Your task to perform on an android device: Search for seafood restaurants on Google Maps Image 0: 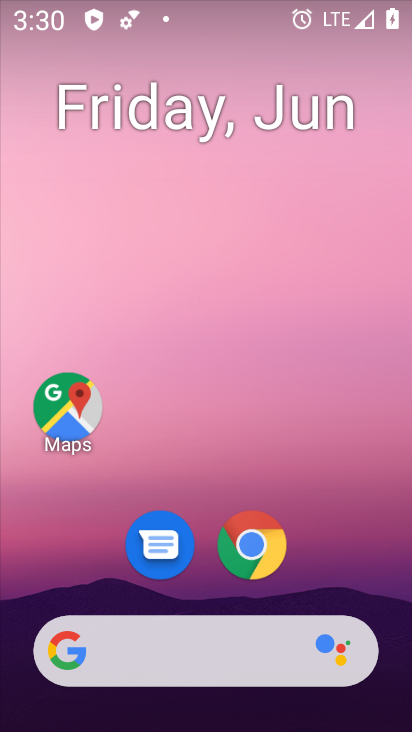
Step 0: click (65, 408)
Your task to perform on an android device: Search for seafood restaurants on Google Maps Image 1: 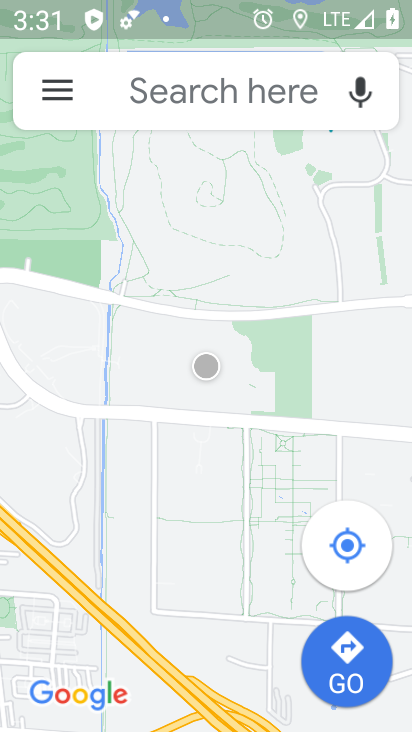
Step 1: click (242, 100)
Your task to perform on an android device: Search for seafood restaurants on Google Maps Image 2: 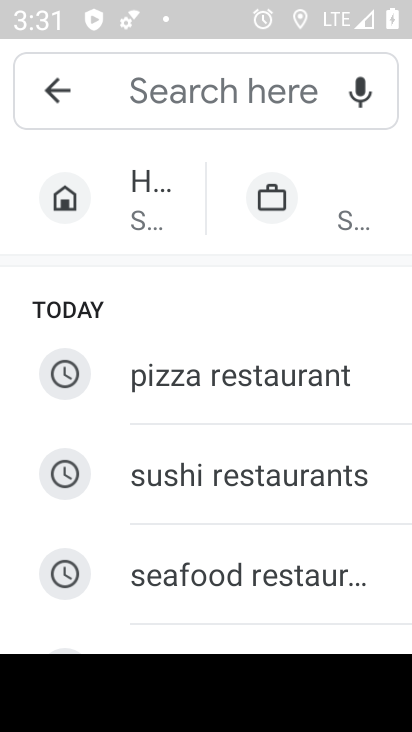
Step 2: type "seafood restaurants"
Your task to perform on an android device: Search for seafood restaurants on Google Maps Image 3: 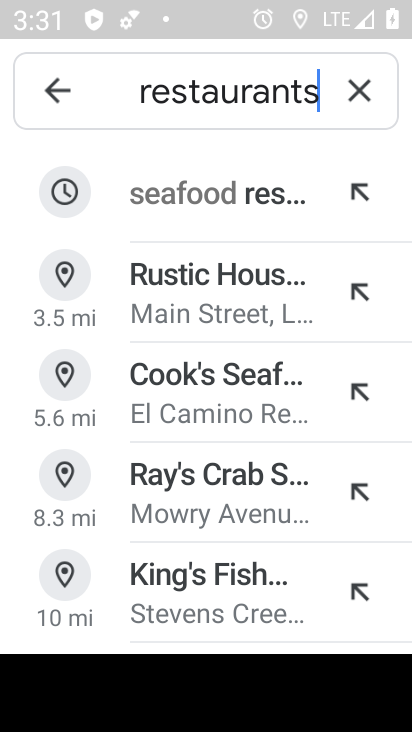
Step 3: click (165, 202)
Your task to perform on an android device: Search for seafood restaurants on Google Maps Image 4: 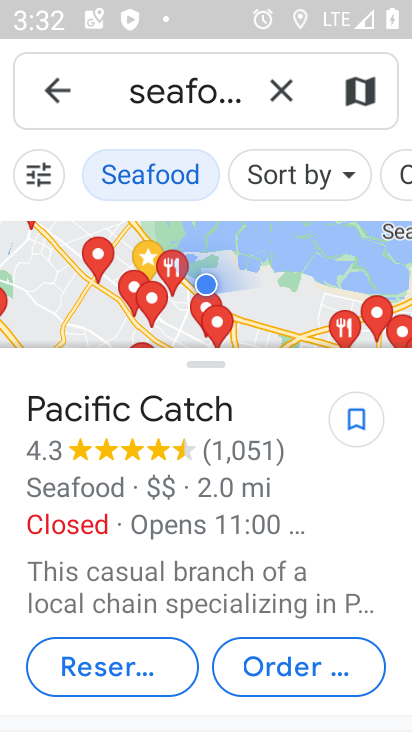
Step 4: task complete